Your task to perform on an android device: toggle data saver in the chrome app Image 0: 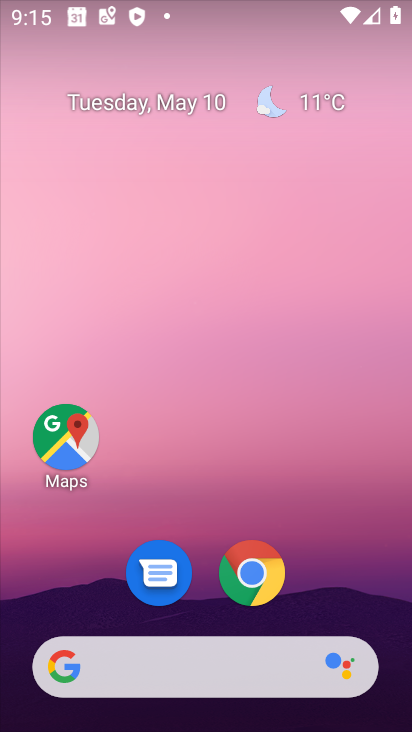
Step 0: click (252, 589)
Your task to perform on an android device: toggle data saver in the chrome app Image 1: 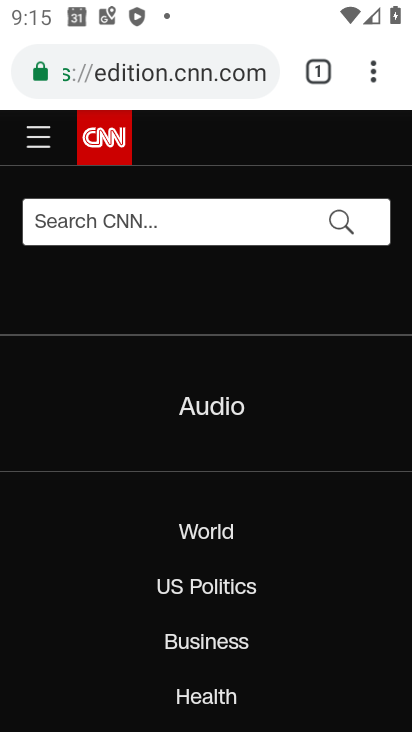
Step 1: drag from (372, 72) to (158, 569)
Your task to perform on an android device: toggle data saver in the chrome app Image 2: 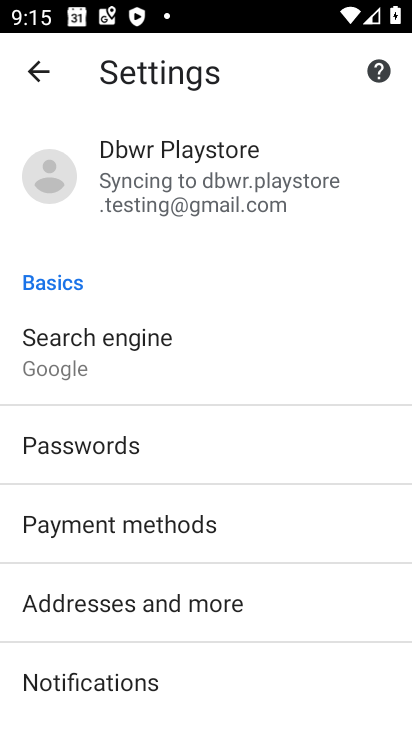
Step 2: drag from (306, 694) to (266, 109)
Your task to perform on an android device: toggle data saver in the chrome app Image 3: 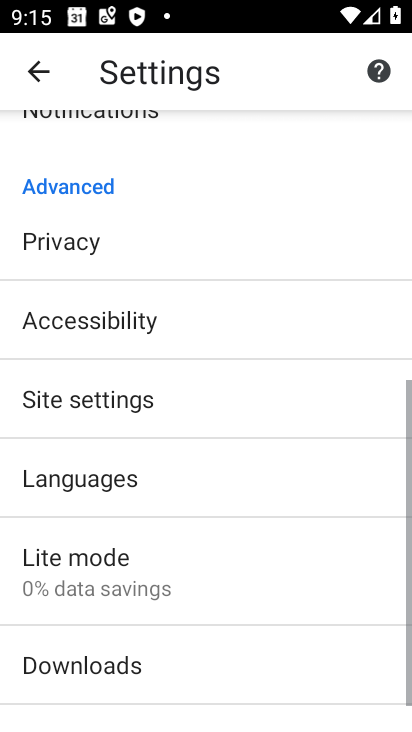
Step 3: click (105, 596)
Your task to perform on an android device: toggle data saver in the chrome app Image 4: 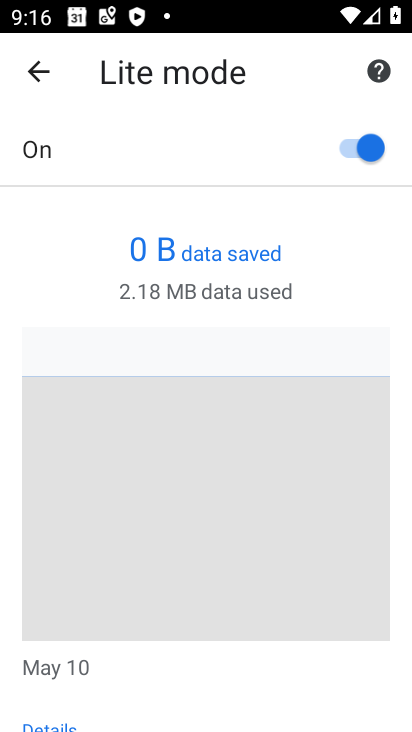
Step 4: click (375, 141)
Your task to perform on an android device: toggle data saver in the chrome app Image 5: 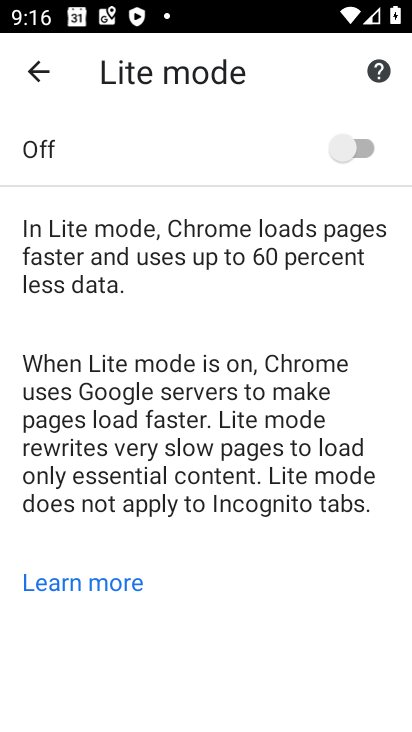
Step 5: task complete